Your task to perform on an android device: delete a single message in the gmail app Image 0: 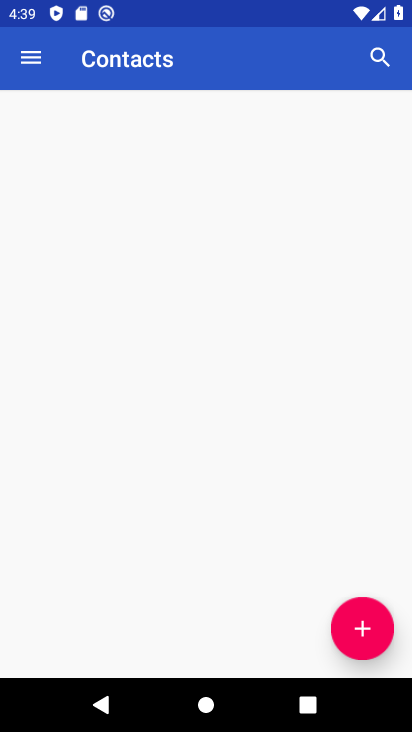
Step 0: press home button
Your task to perform on an android device: delete a single message in the gmail app Image 1: 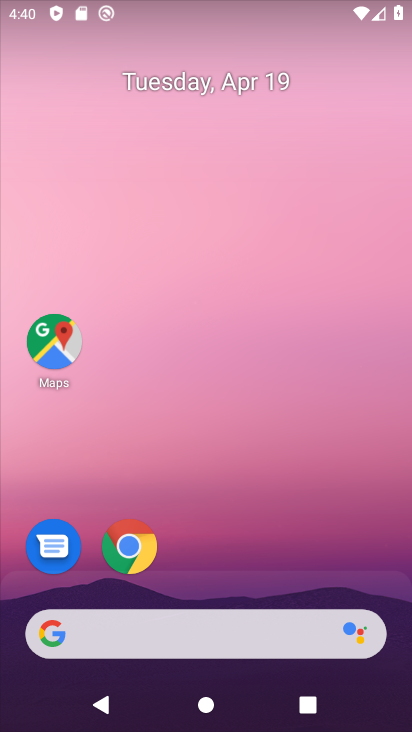
Step 1: click (350, 43)
Your task to perform on an android device: delete a single message in the gmail app Image 2: 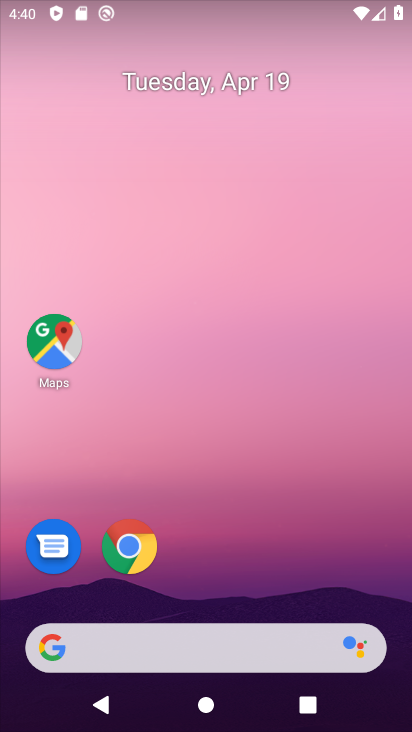
Step 2: drag from (313, 366) to (377, 49)
Your task to perform on an android device: delete a single message in the gmail app Image 3: 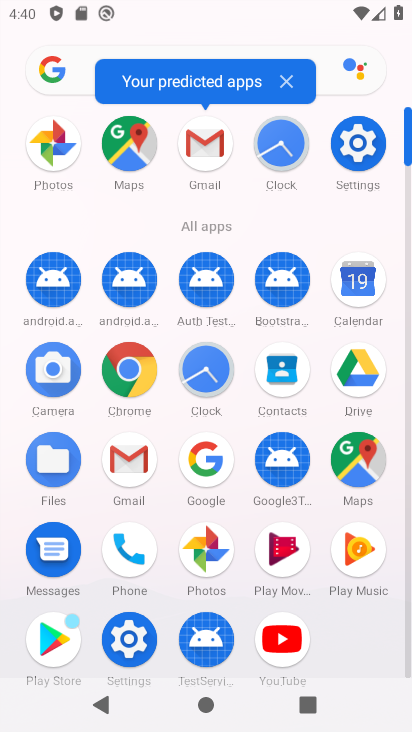
Step 3: click (191, 141)
Your task to perform on an android device: delete a single message in the gmail app Image 4: 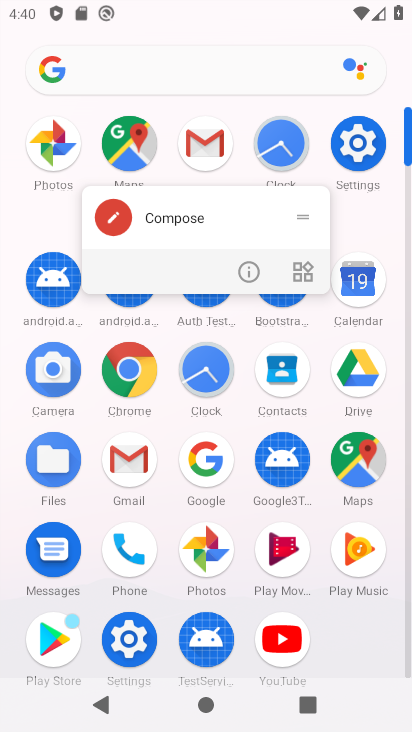
Step 4: click (191, 142)
Your task to perform on an android device: delete a single message in the gmail app Image 5: 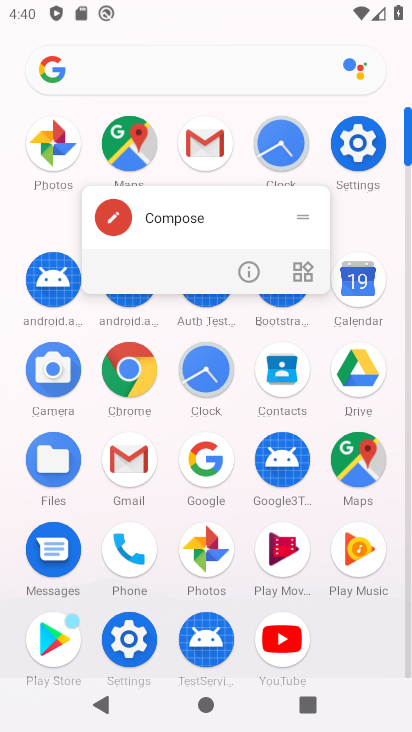
Step 5: click (191, 141)
Your task to perform on an android device: delete a single message in the gmail app Image 6: 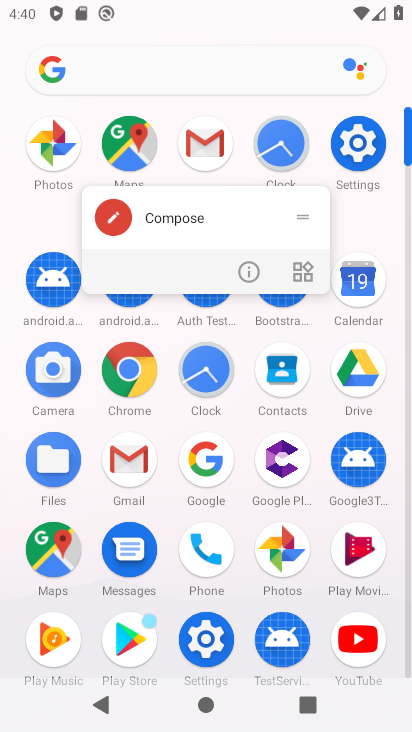
Step 6: click (191, 149)
Your task to perform on an android device: delete a single message in the gmail app Image 7: 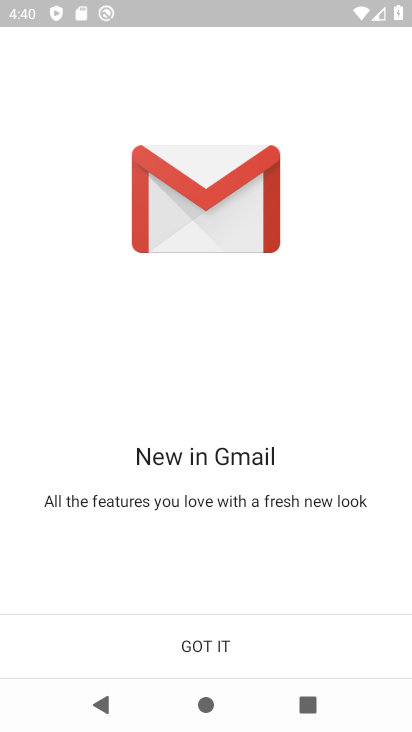
Step 7: click (200, 644)
Your task to perform on an android device: delete a single message in the gmail app Image 8: 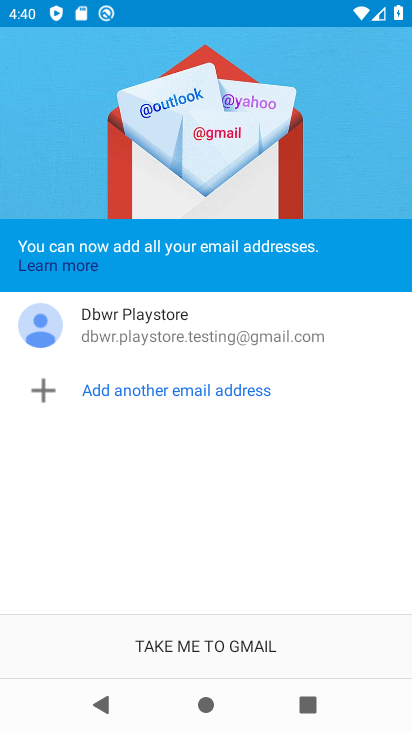
Step 8: click (197, 642)
Your task to perform on an android device: delete a single message in the gmail app Image 9: 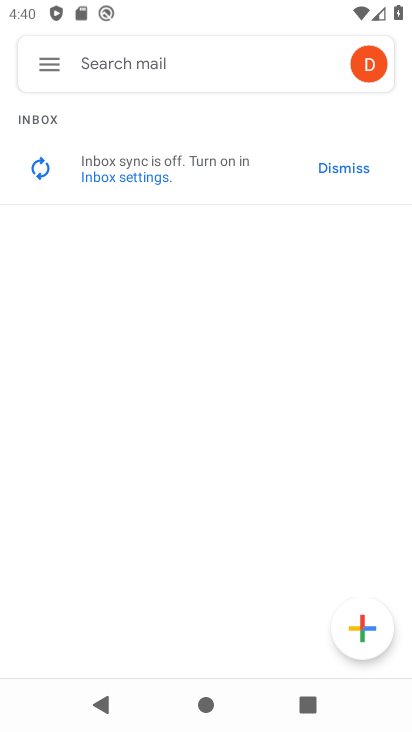
Step 9: task complete